Your task to perform on an android device: Go to location settings Image 0: 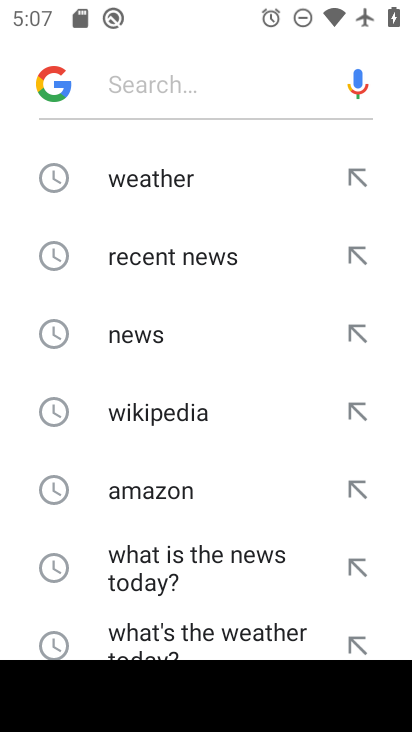
Step 0: press home button
Your task to perform on an android device: Go to location settings Image 1: 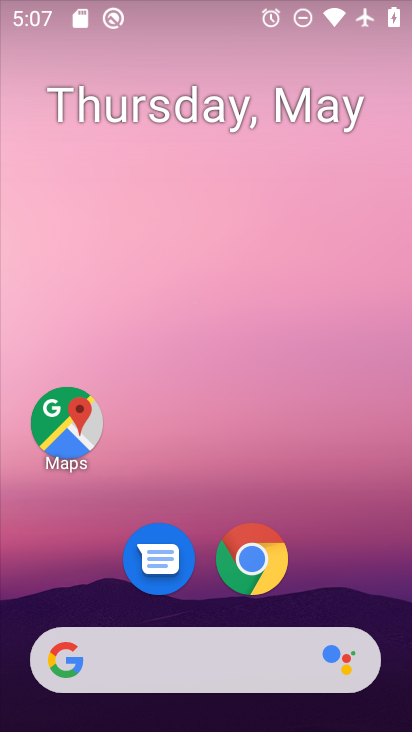
Step 1: drag from (323, 548) to (221, 47)
Your task to perform on an android device: Go to location settings Image 2: 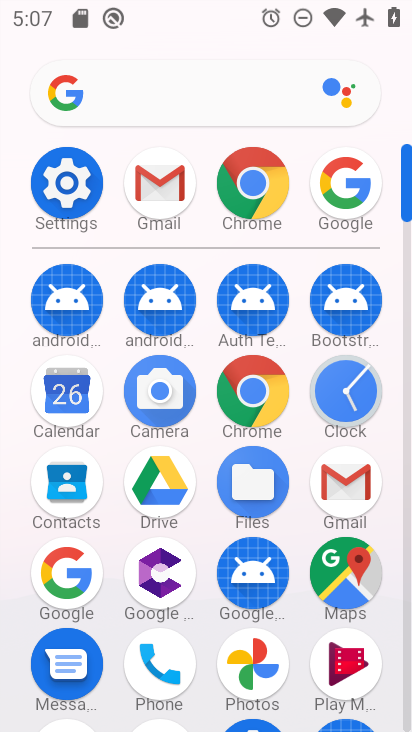
Step 2: click (75, 209)
Your task to perform on an android device: Go to location settings Image 3: 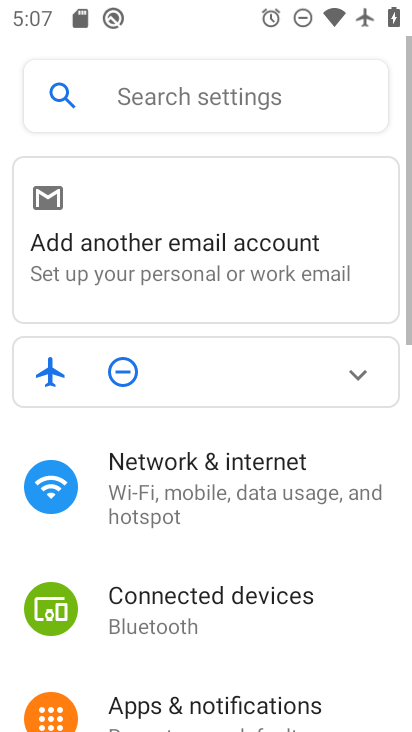
Step 3: drag from (279, 656) to (181, 97)
Your task to perform on an android device: Go to location settings Image 4: 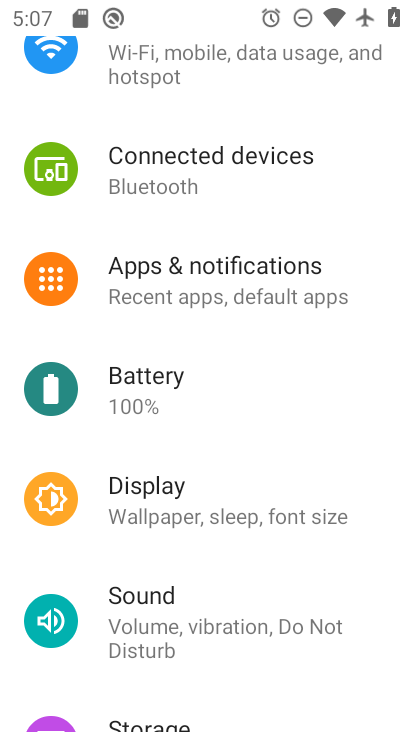
Step 4: drag from (278, 589) to (248, 92)
Your task to perform on an android device: Go to location settings Image 5: 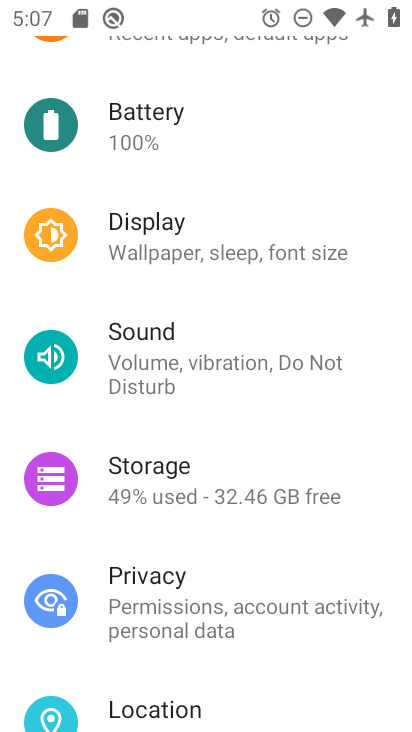
Step 5: click (190, 697)
Your task to perform on an android device: Go to location settings Image 6: 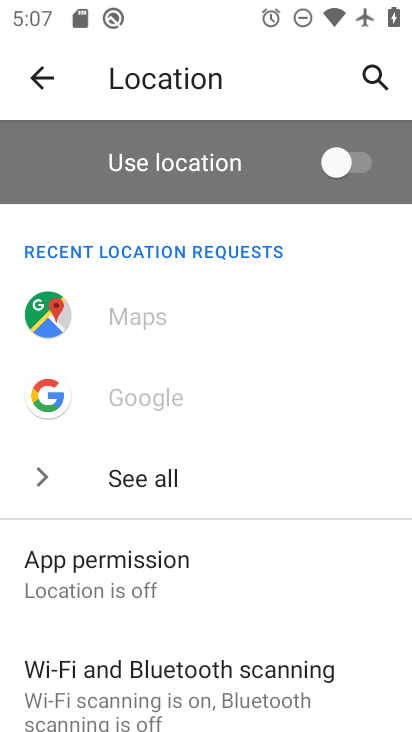
Step 6: task complete